Your task to perform on an android device: Open privacy settings Image 0: 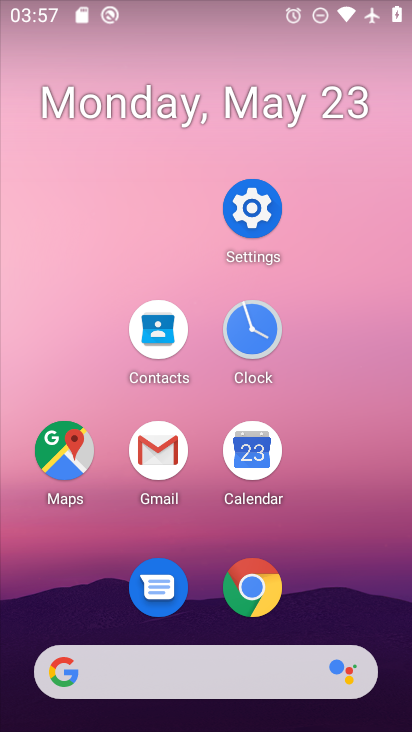
Step 0: click (244, 239)
Your task to perform on an android device: Open privacy settings Image 1: 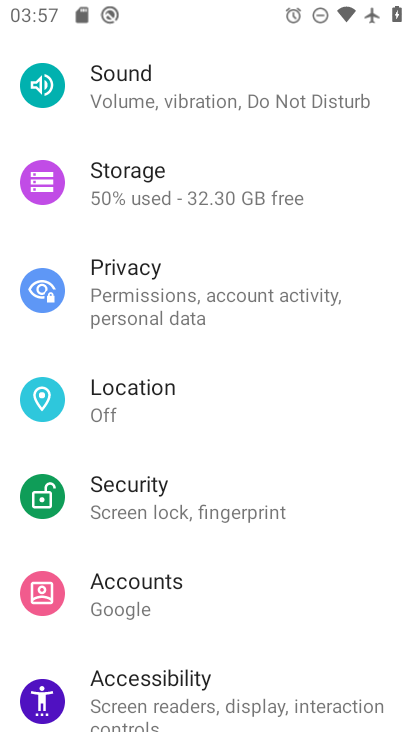
Step 1: click (218, 277)
Your task to perform on an android device: Open privacy settings Image 2: 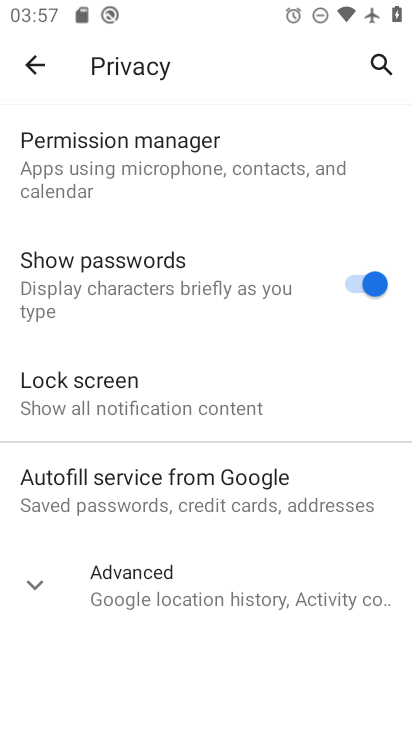
Step 2: task complete